Your task to perform on an android device: Open calendar and show me the first week of next month Image 0: 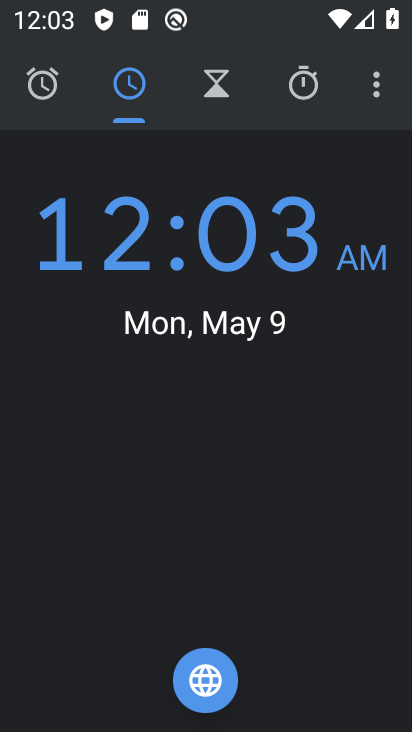
Step 0: press home button
Your task to perform on an android device: Open calendar and show me the first week of next month Image 1: 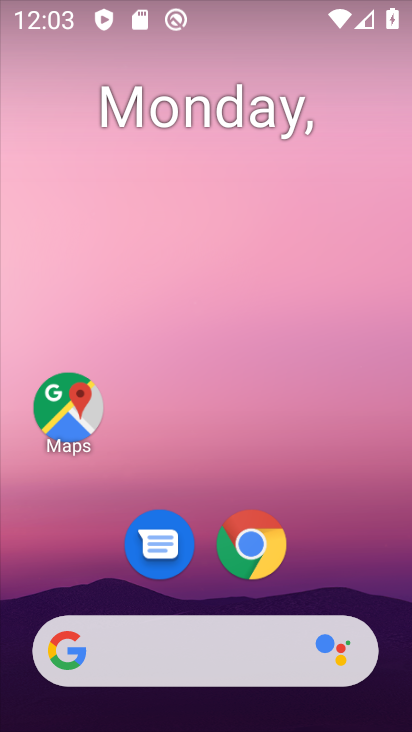
Step 1: drag from (327, 609) to (316, 31)
Your task to perform on an android device: Open calendar and show me the first week of next month Image 2: 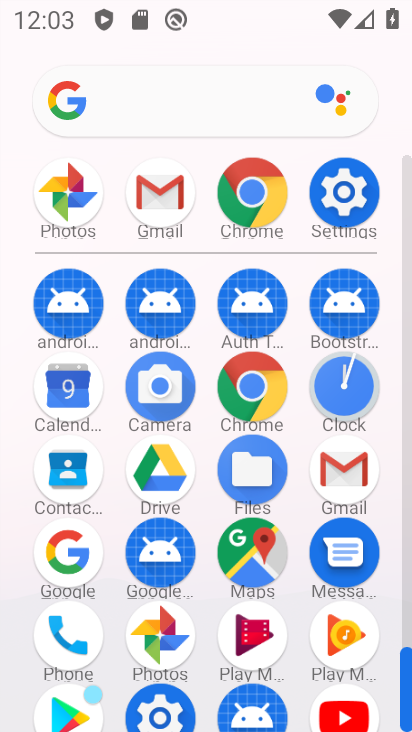
Step 2: click (70, 395)
Your task to perform on an android device: Open calendar and show me the first week of next month Image 3: 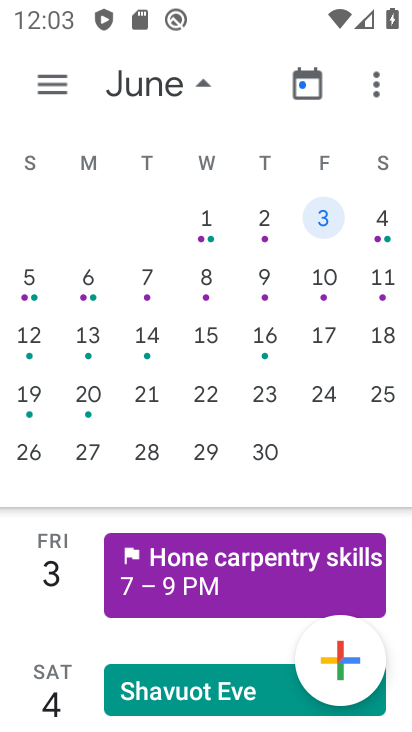
Step 3: click (266, 226)
Your task to perform on an android device: Open calendar and show me the first week of next month Image 4: 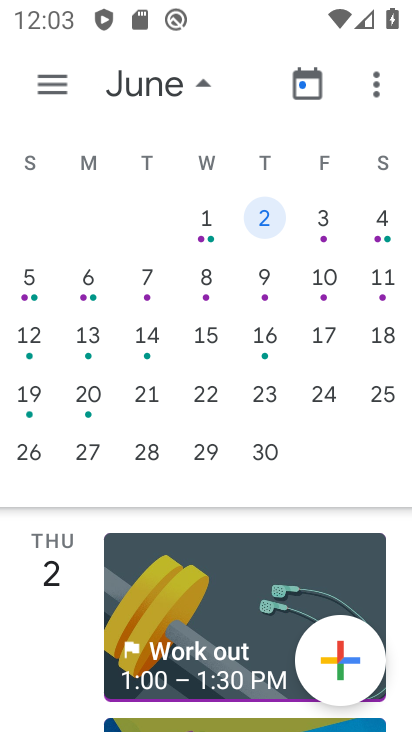
Step 4: click (57, 82)
Your task to perform on an android device: Open calendar and show me the first week of next month Image 5: 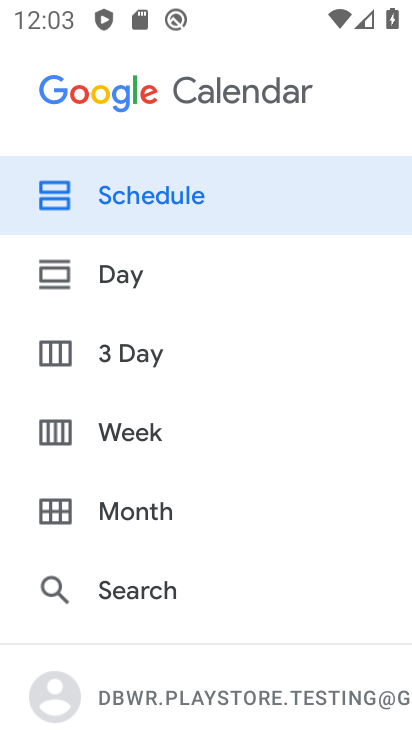
Step 5: click (167, 460)
Your task to perform on an android device: Open calendar and show me the first week of next month Image 6: 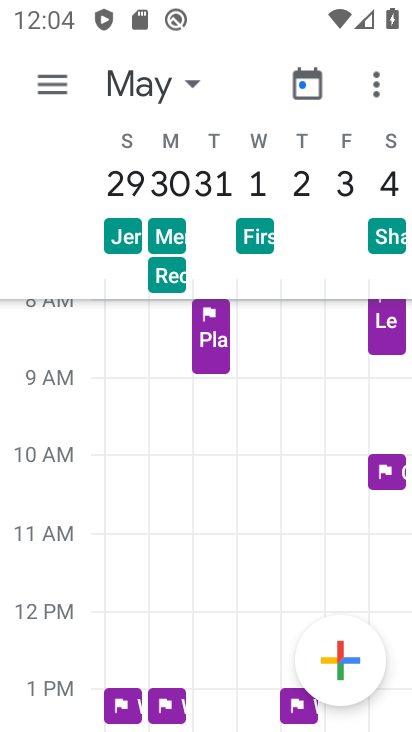
Step 6: task complete